Your task to perform on an android device: Open notification settings Image 0: 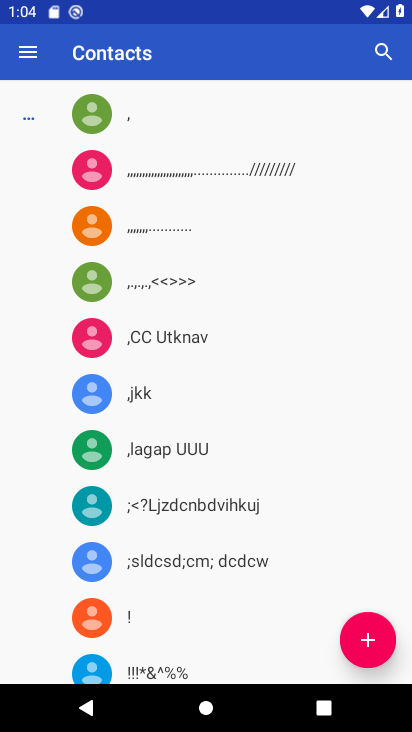
Step 0: press home button
Your task to perform on an android device: Open notification settings Image 1: 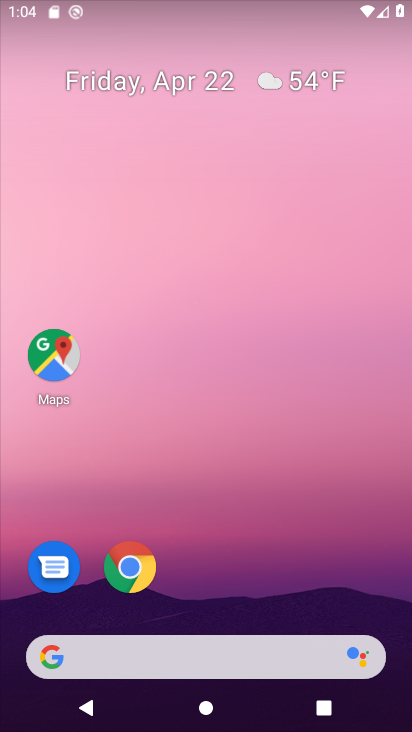
Step 1: drag from (246, 679) to (319, 128)
Your task to perform on an android device: Open notification settings Image 2: 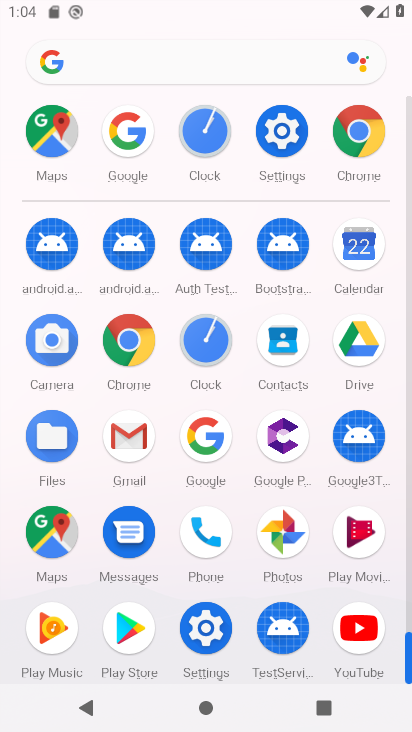
Step 2: click (286, 161)
Your task to perform on an android device: Open notification settings Image 3: 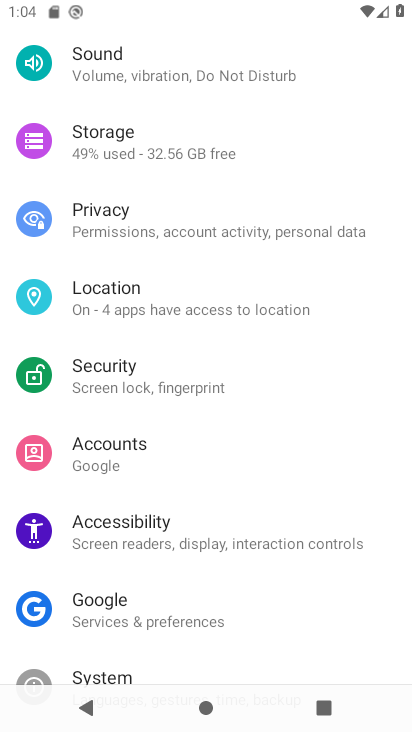
Step 3: drag from (218, 305) to (221, 566)
Your task to perform on an android device: Open notification settings Image 4: 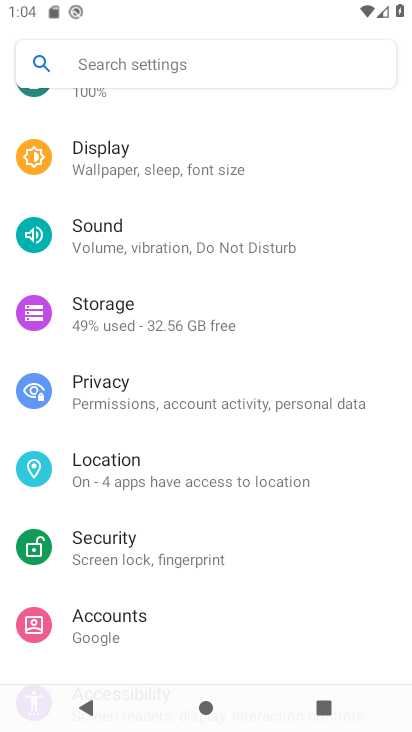
Step 4: drag from (232, 400) to (236, 660)
Your task to perform on an android device: Open notification settings Image 5: 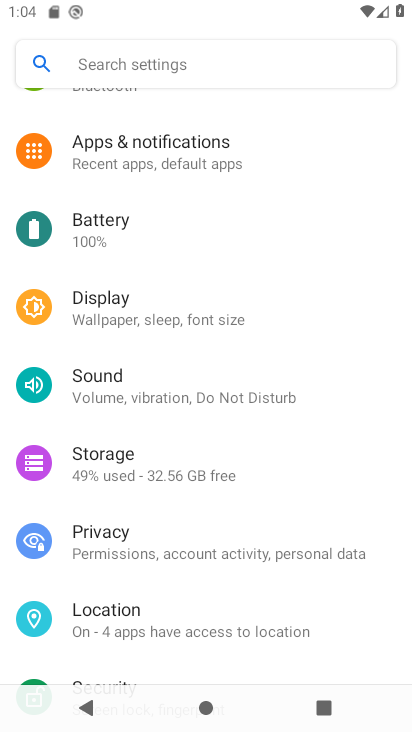
Step 5: click (268, 162)
Your task to perform on an android device: Open notification settings Image 6: 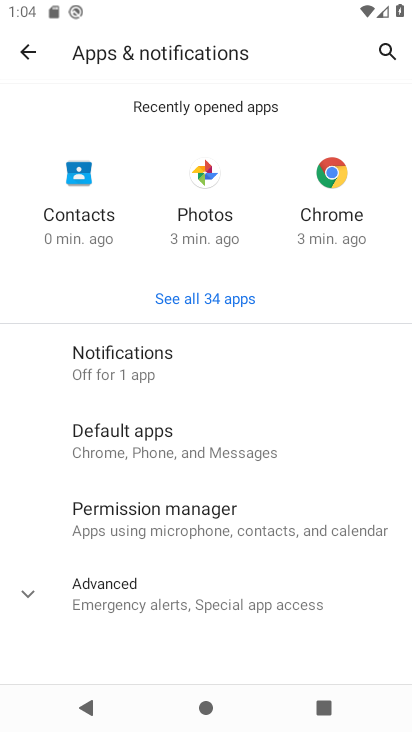
Step 6: click (212, 357)
Your task to perform on an android device: Open notification settings Image 7: 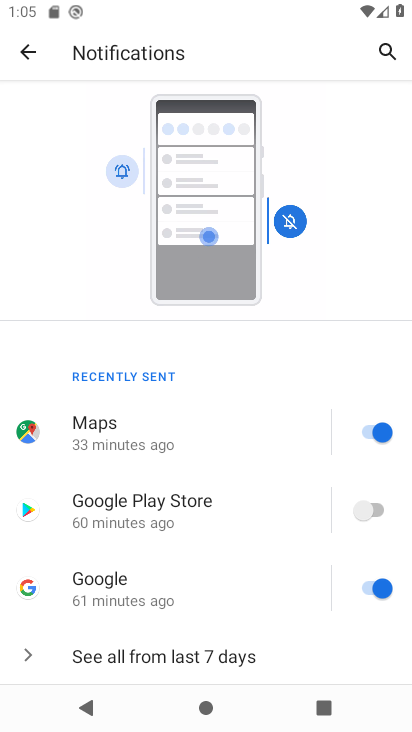
Step 7: task complete